Your task to perform on an android device: delete browsing data in the chrome app Image 0: 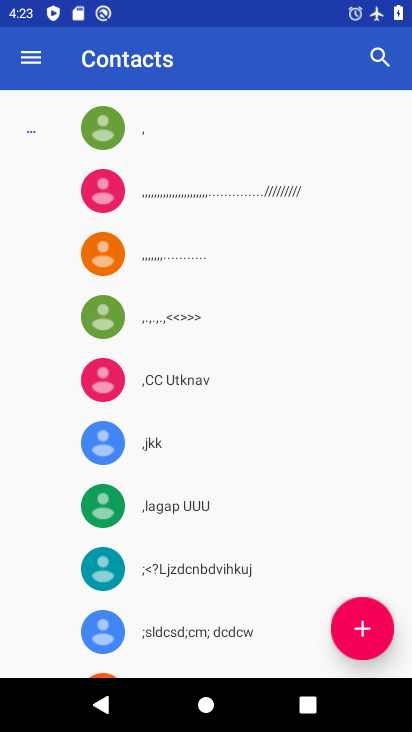
Step 0: press home button
Your task to perform on an android device: delete browsing data in the chrome app Image 1: 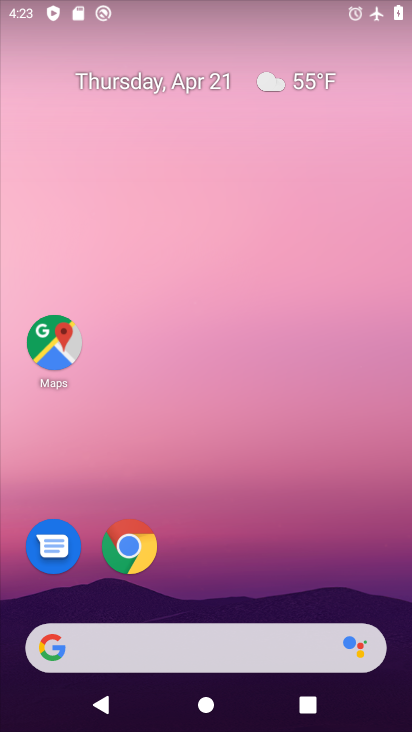
Step 1: click (137, 543)
Your task to perform on an android device: delete browsing data in the chrome app Image 2: 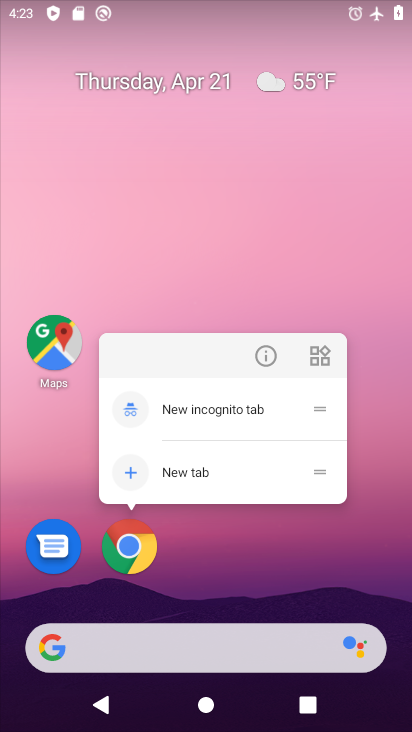
Step 2: click (124, 556)
Your task to perform on an android device: delete browsing data in the chrome app Image 3: 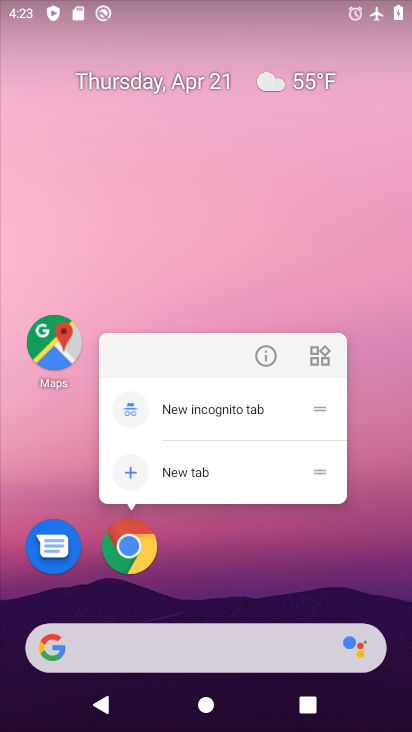
Step 3: click (132, 551)
Your task to perform on an android device: delete browsing data in the chrome app Image 4: 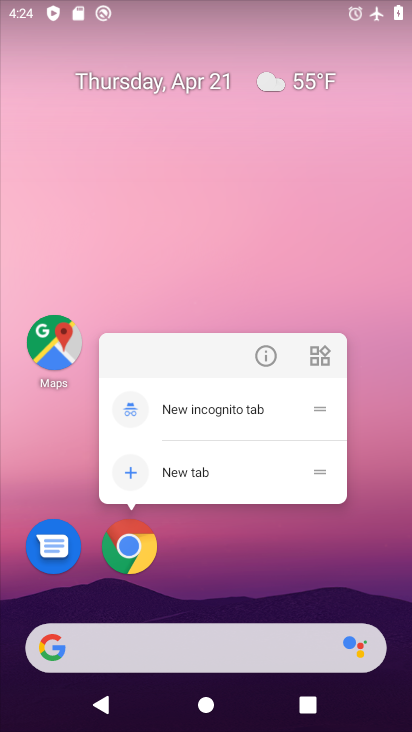
Step 4: click (128, 546)
Your task to perform on an android device: delete browsing data in the chrome app Image 5: 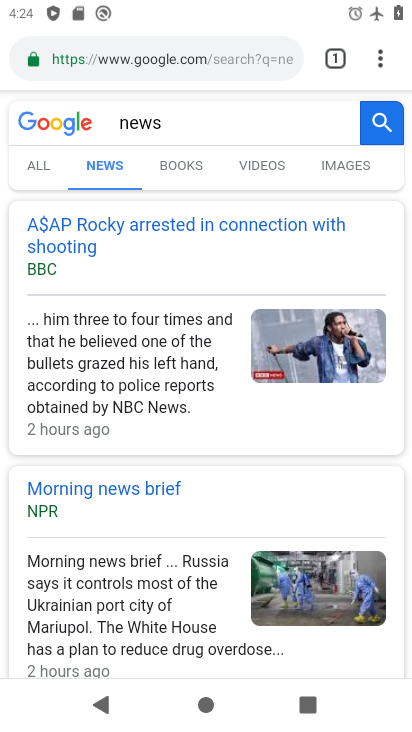
Step 5: drag from (378, 56) to (200, 261)
Your task to perform on an android device: delete browsing data in the chrome app Image 6: 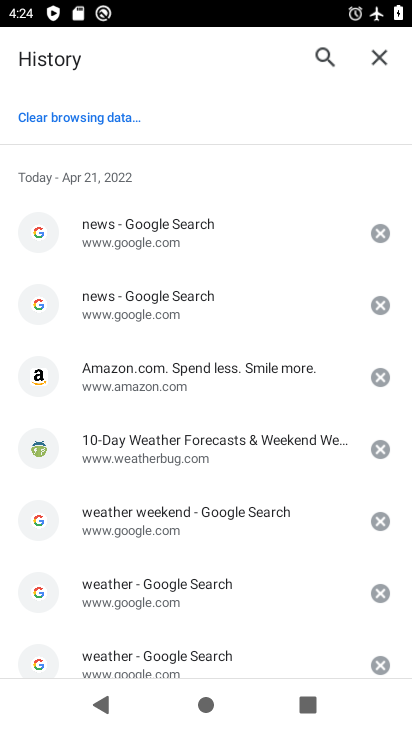
Step 6: click (47, 114)
Your task to perform on an android device: delete browsing data in the chrome app Image 7: 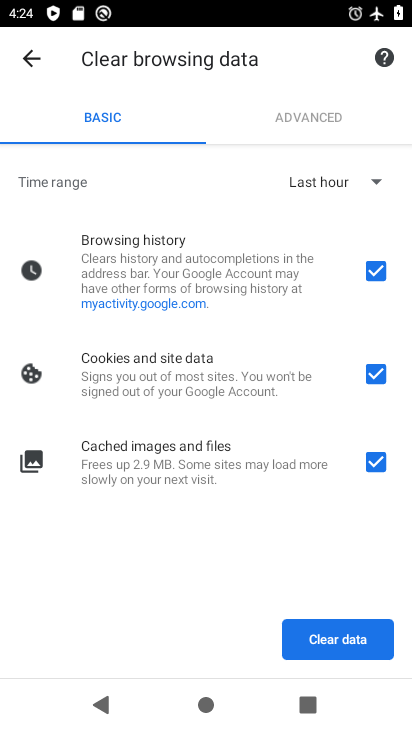
Step 7: click (319, 636)
Your task to perform on an android device: delete browsing data in the chrome app Image 8: 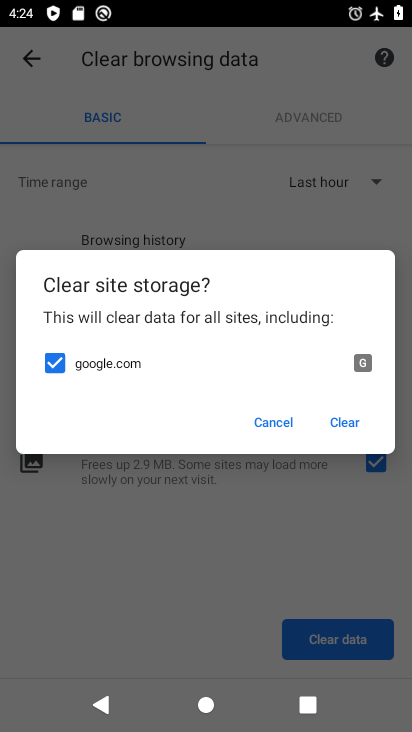
Step 8: click (355, 416)
Your task to perform on an android device: delete browsing data in the chrome app Image 9: 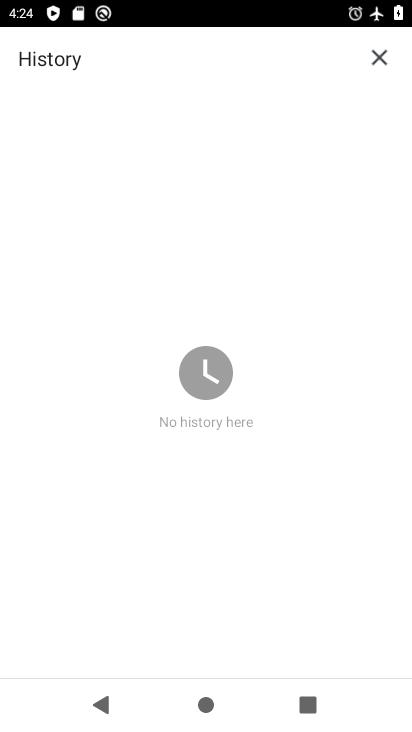
Step 9: task complete